Your task to perform on an android device: Go to Google Image 0: 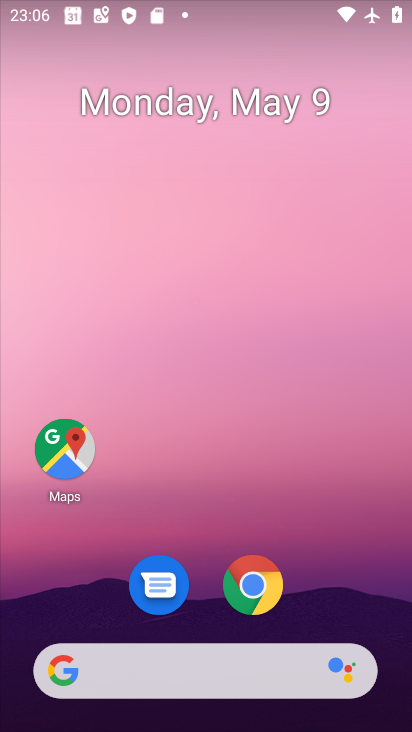
Step 0: click (153, 669)
Your task to perform on an android device: Go to Google Image 1: 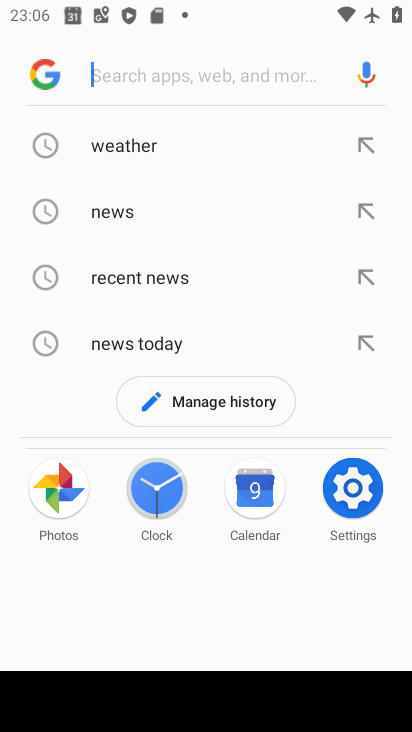
Step 1: click (39, 58)
Your task to perform on an android device: Go to Google Image 2: 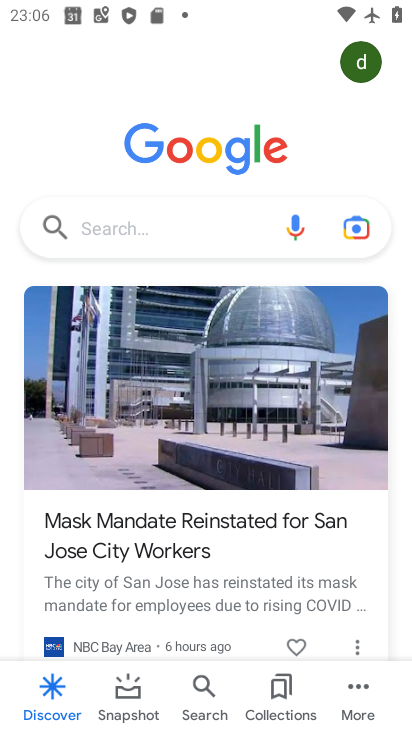
Step 2: task complete